Your task to perform on an android device: show emergency info Image 0: 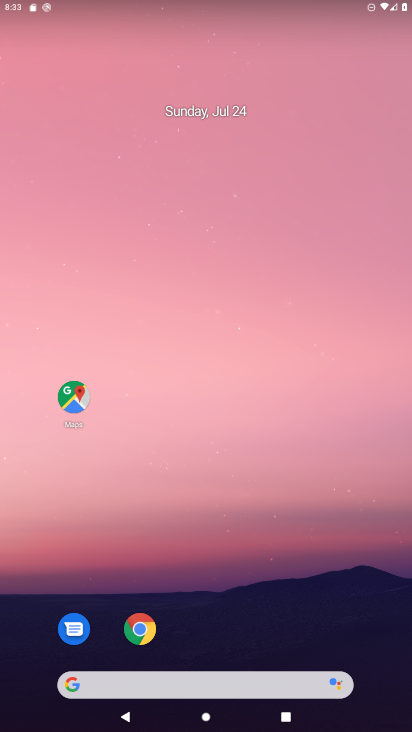
Step 0: drag from (375, 643) to (207, 5)
Your task to perform on an android device: show emergency info Image 1: 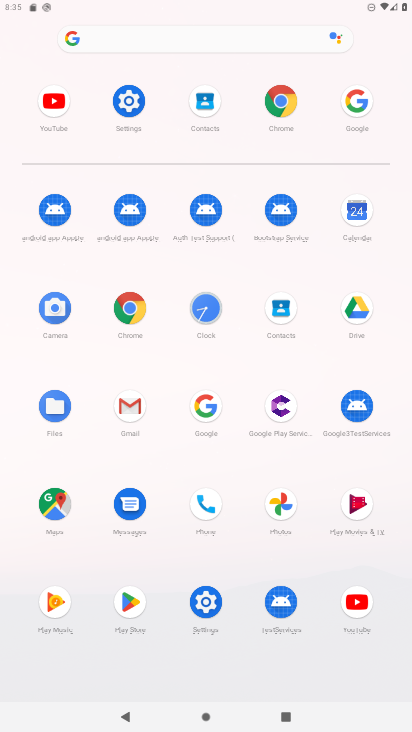
Step 1: click (206, 603)
Your task to perform on an android device: show emergency info Image 2: 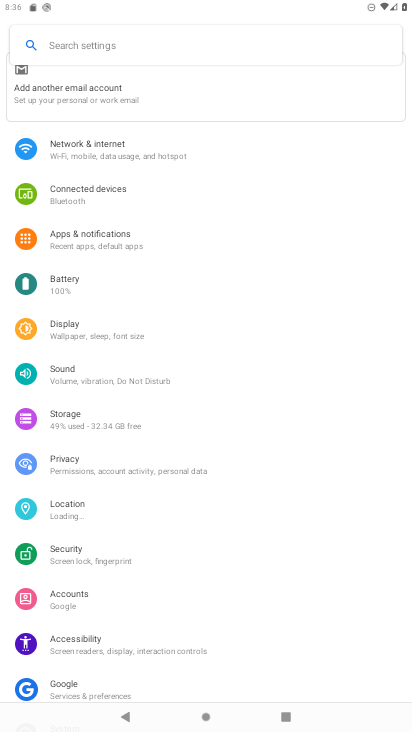
Step 2: drag from (121, 687) to (85, 97)
Your task to perform on an android device: show emergency info Image 3: 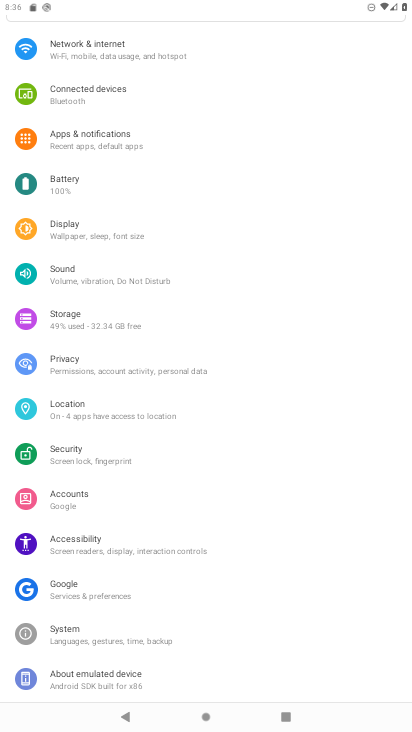
Step 3: click (97, 685)
Your task to perform on an android device: show emergency info Image 4: 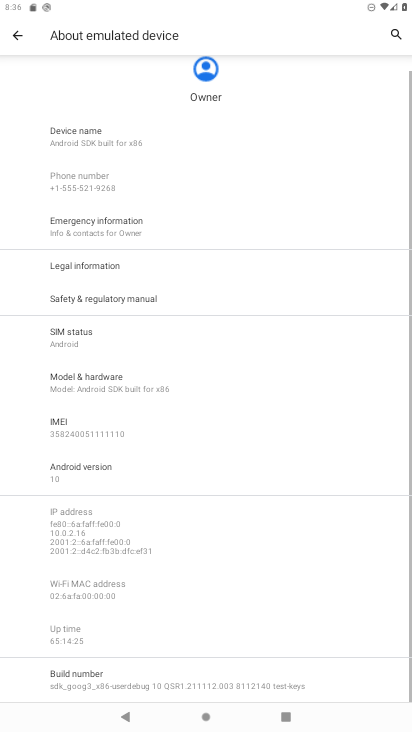
Step 4: click (94, 231)
Your task to perform on an android device: show emergency info Image 5: 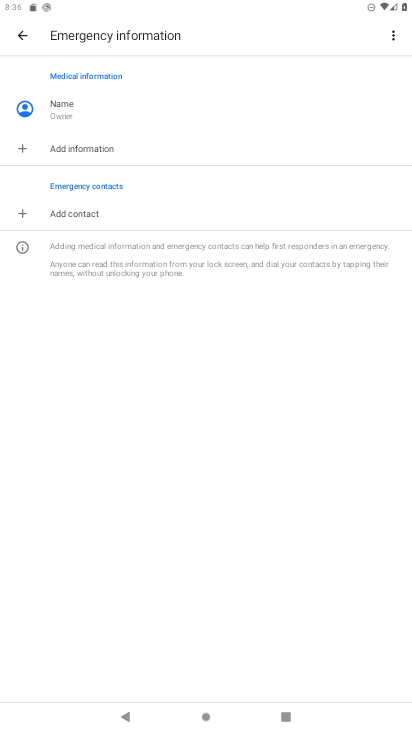
Step 5: task complete